Your task to perform on an android device: Open display settings Image 0: 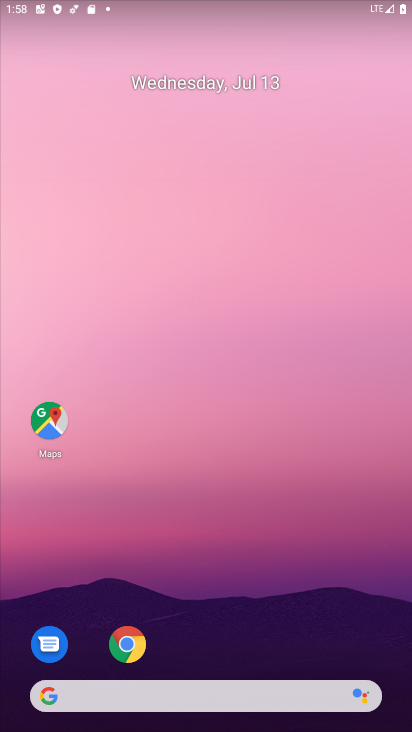
Step 0: drag from (382, 627) to (358, 121)
Your task to perform on an android device: Open display settings Image 1: 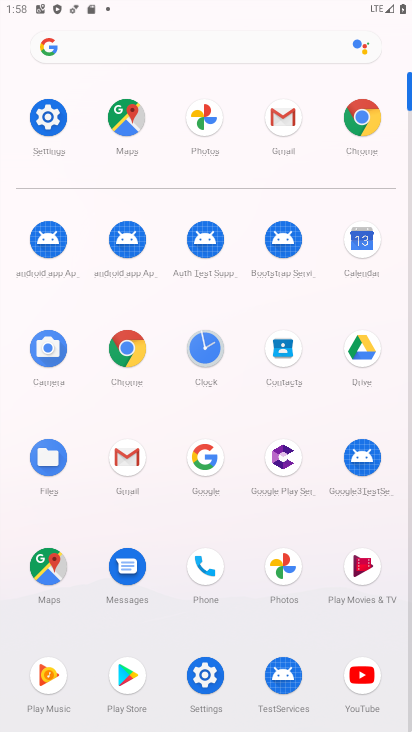
Step 1: click (49, 111)
Your task to perform on an android device: Open display settings Image 2: 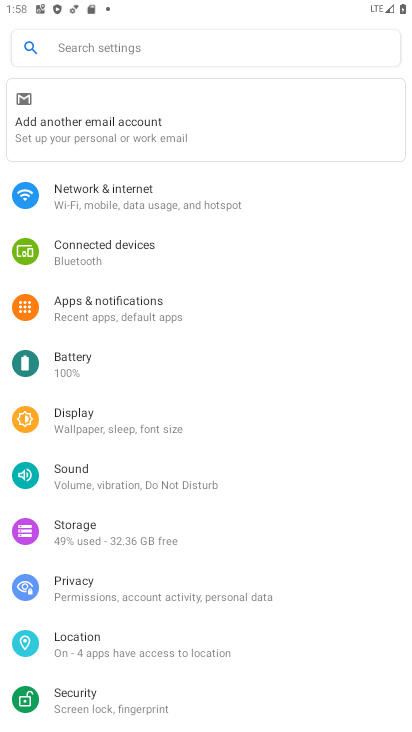
Step 2: click (153, 429)
Your task to perform on an android device: Open display settings Image 3: 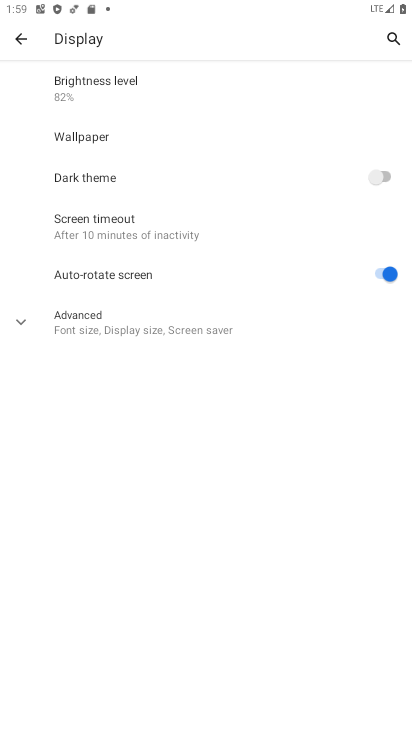
Step 3: task complete